Your task to perform on an android device: Open calendar and show me the second week of next month Image 0: 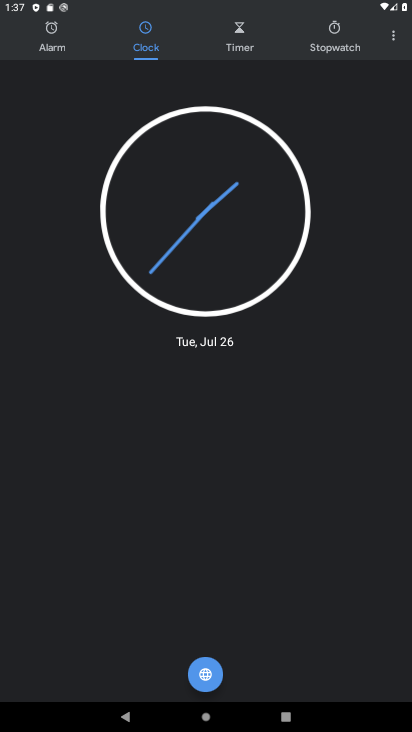
Step 0: press home button
Your task to perform on an android device: Open calendar and show me the second week of next month Image 1: 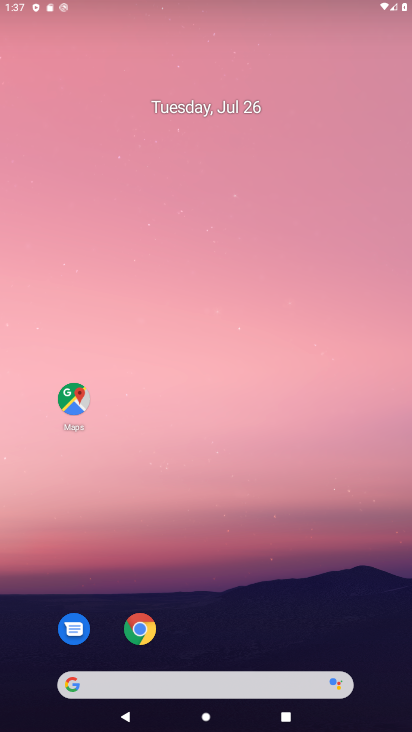
Step 1: drag from (206, 613) to (238, 129)
Your task to perform on an android device: Open calendar and show me the second week of next month Image 2: 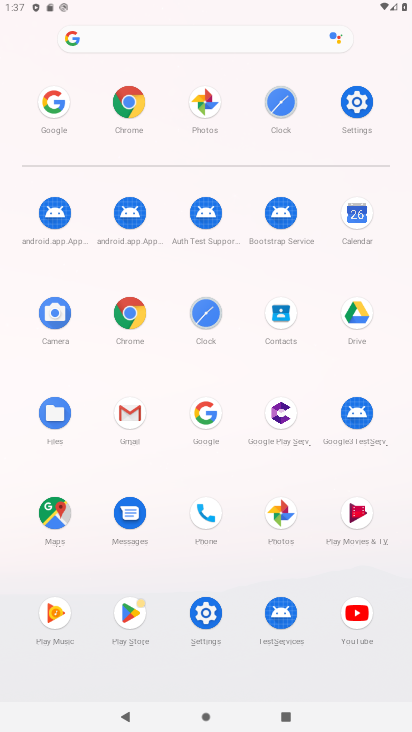
Step 2: click (360, 199)
Your task to perform on an android device: Open calendar and show me the second week of next month Image 3: 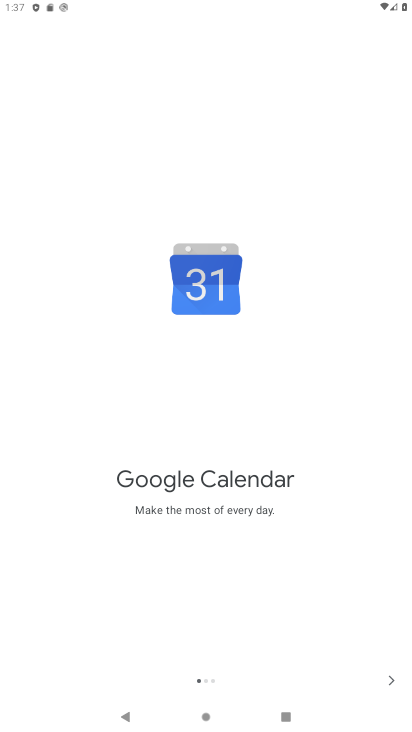
Step 3: click (389, 681)
Your task to perform on an android device: Open calendar and show me the second week of next month Image 4: 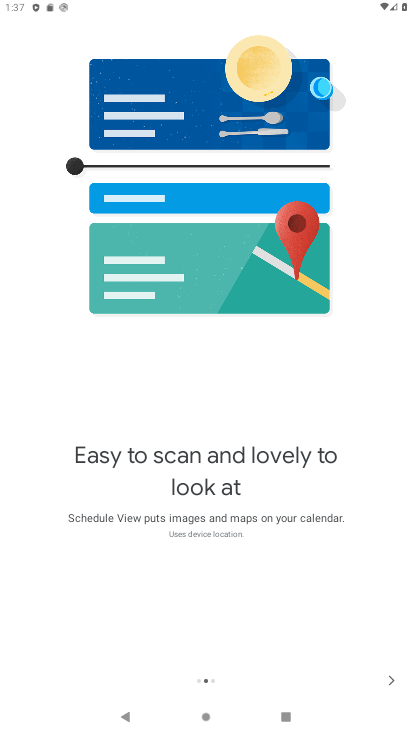
Step 4: click (389, 681)
Your task to perform on an android device: Open calendar and show me the second week of next month Image 5: 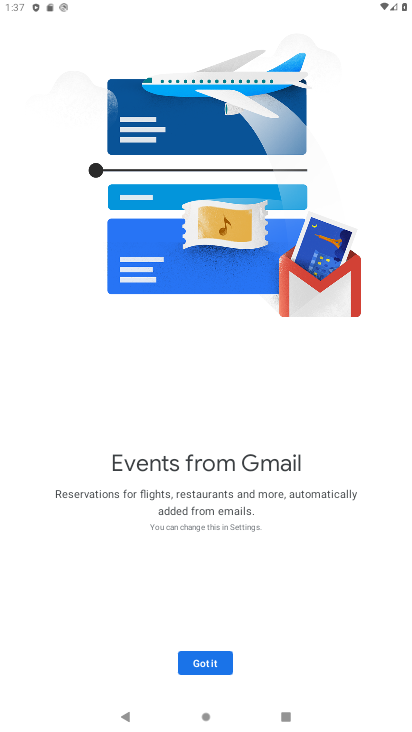
Step 5: click (208, 667)
Your task to perform on an android device: Open calendar and show me the second week of next month Image 6: 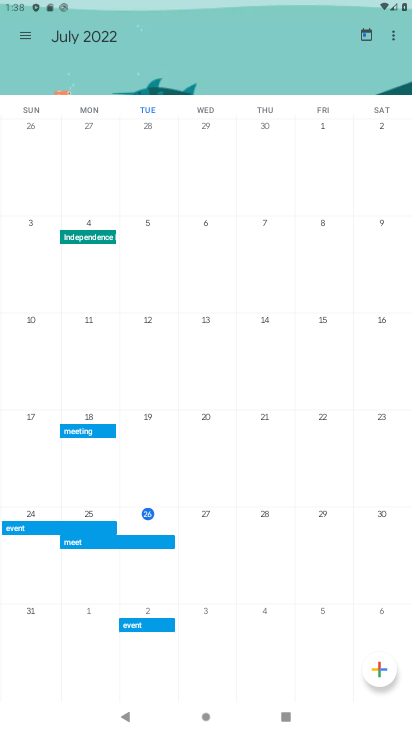
Step 6: click (114, 38)
Your task to perform on an android device: Open calendar and show me the second week of next month Image 7: 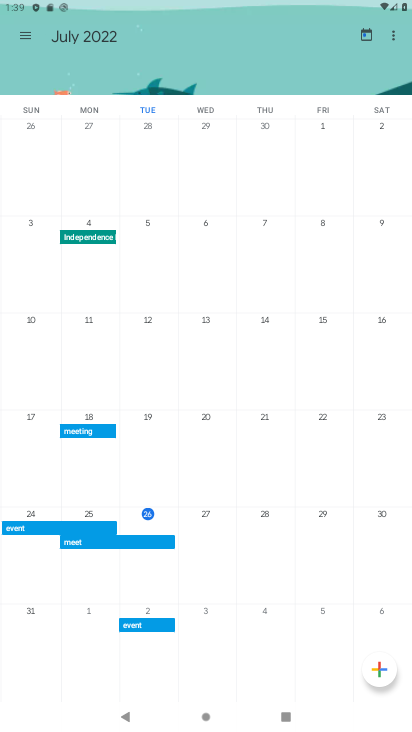
Step 7: drag from (343, 443) to (11, 456)
Your task to perform on an android device: Open calendar and show me the second week of next month Image 8: 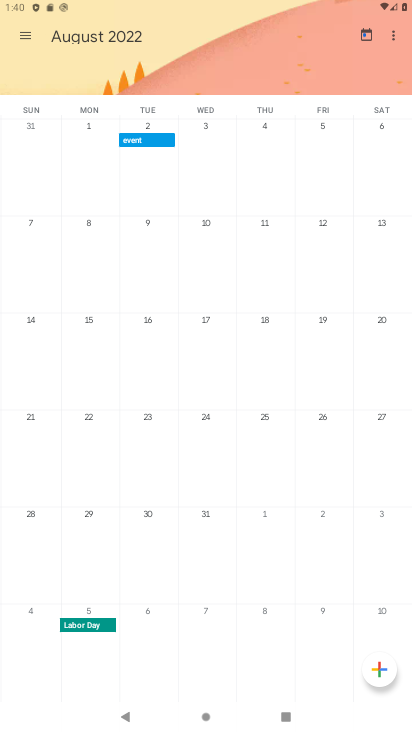
Step 8: click (214, 226)
Your task to perform on an android device: Open calendar and show me the second week of next month Image 9: 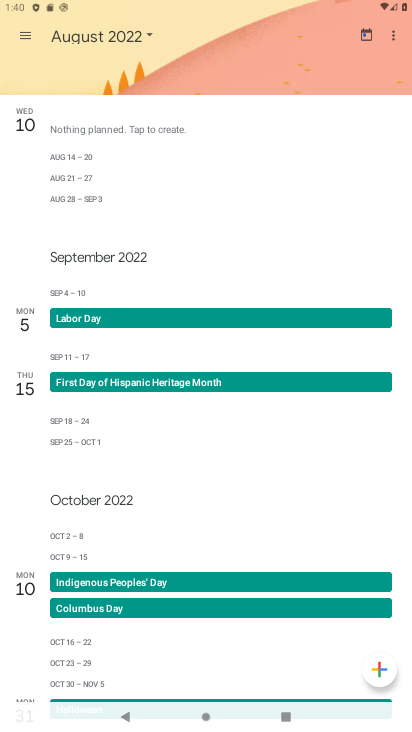
Step 9: click (26, 32)
Your task to perform on an android device: Open calendar and show me the second week of next month Image 10: 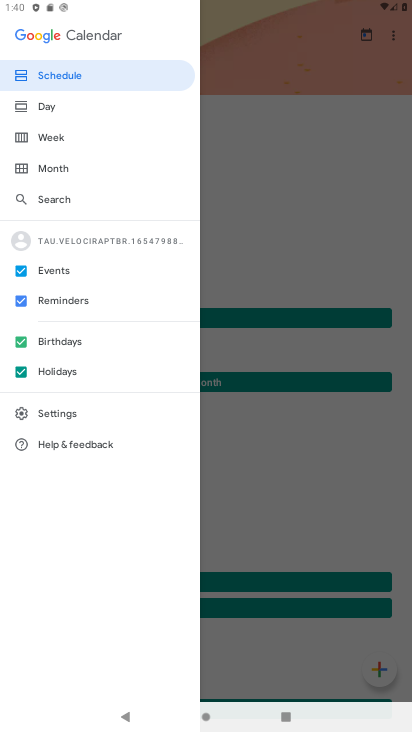
Step 10: click (61, 131)
Your task to perform on an android device: Open calendar and show me the second week of next month Image 11: 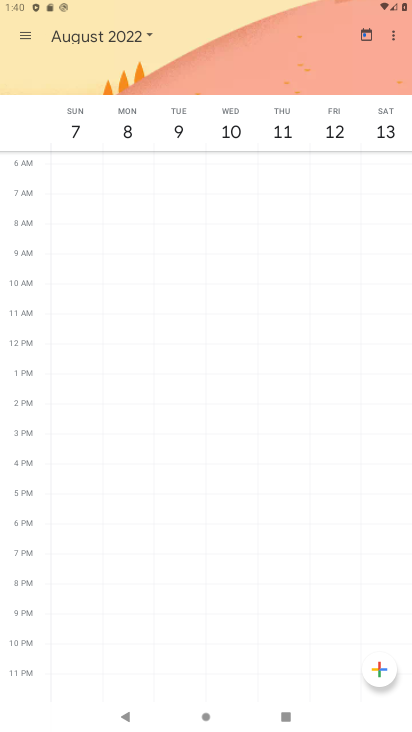
Step 11: task complete